Your task to perform on an android device: Go to eBay Image 0: 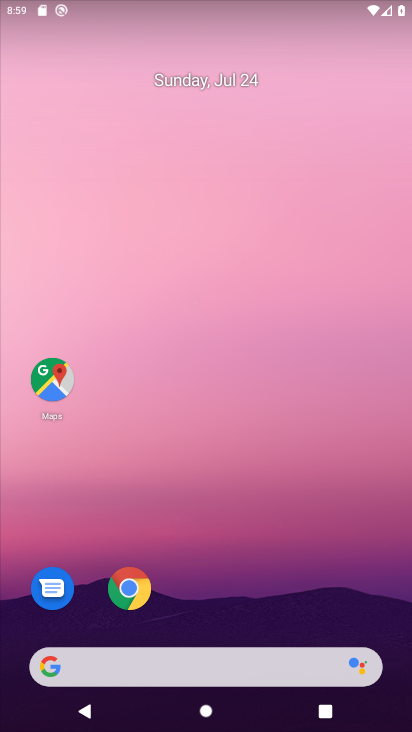
Step 0: click (121, 567)
Your task to perform on an android device: Go to eBay Image 1: 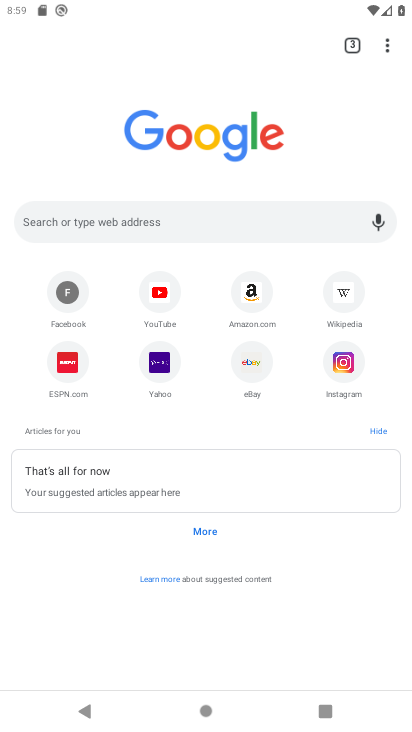
Step 1: click (164, 223)
Your task to perform on an android device: Go to eBay Image 2: 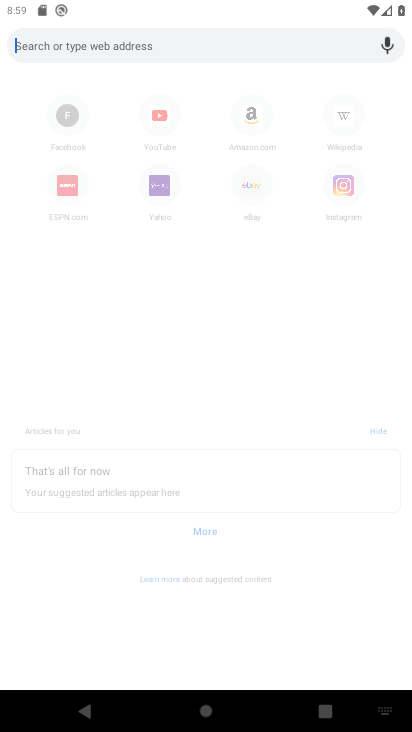
Step 2: type "eBay"
Your task to perform on an android device: Go to eBay Image 3: 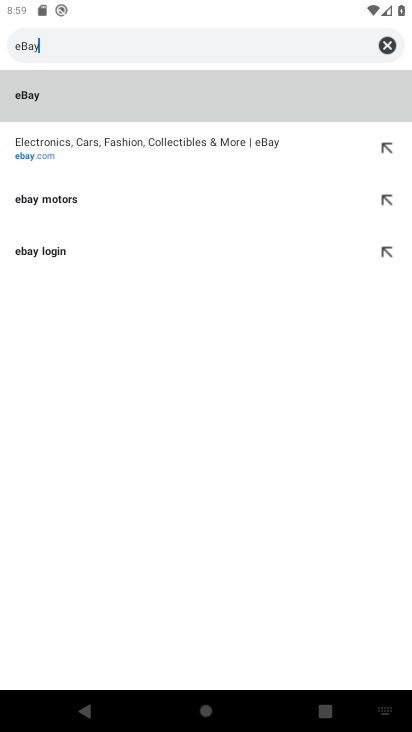
Step 3: click (13, 83)
Your task to perform on an android device: Go to eBay Image 4: 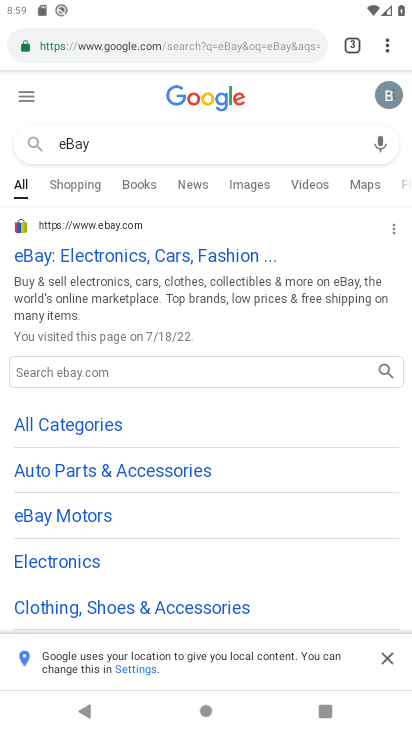
Step 4: task complete